Your task to perform on an android device: open app "Messages" Image 0: 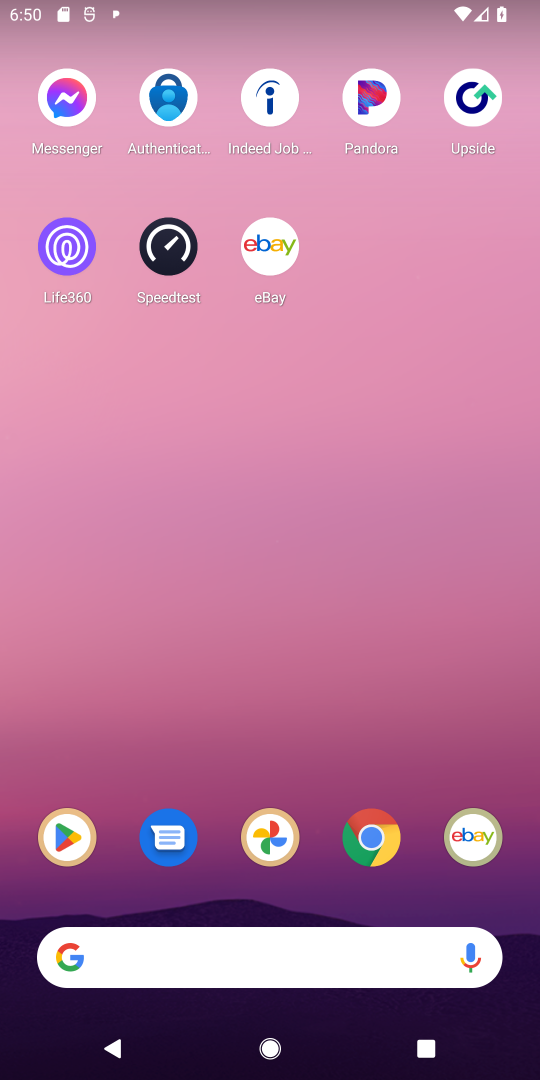
Step 0: click (172, 855)
Your task to perform on an android device: open app "Messages" Image 1: 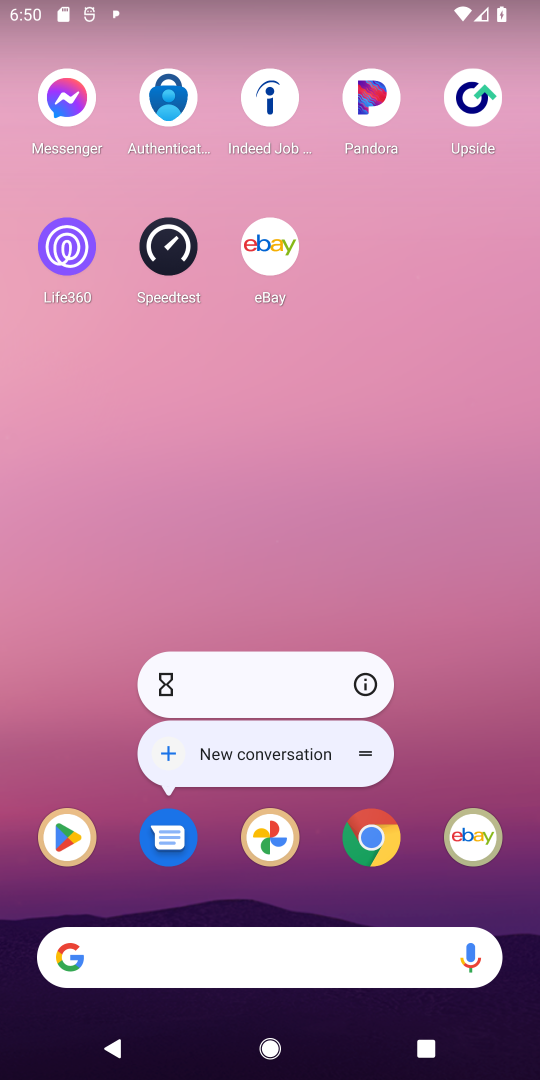
Step 1: click (172, 847)
Your task to perform on an android device: open app "Messages" Image 2: 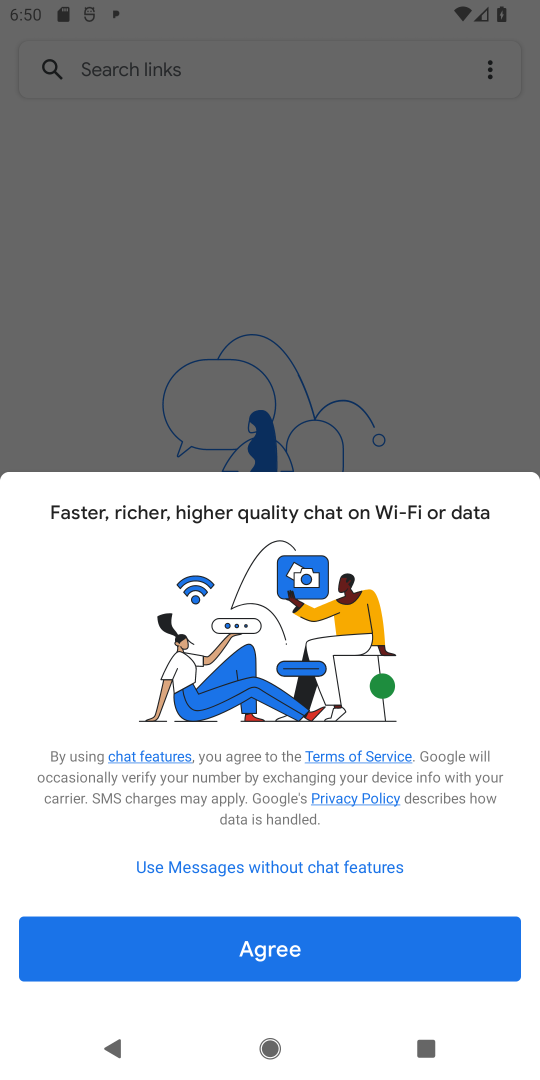
Step 2: task complete